Your task to perform on an android device: turn off translation in the chrome app Image 0: 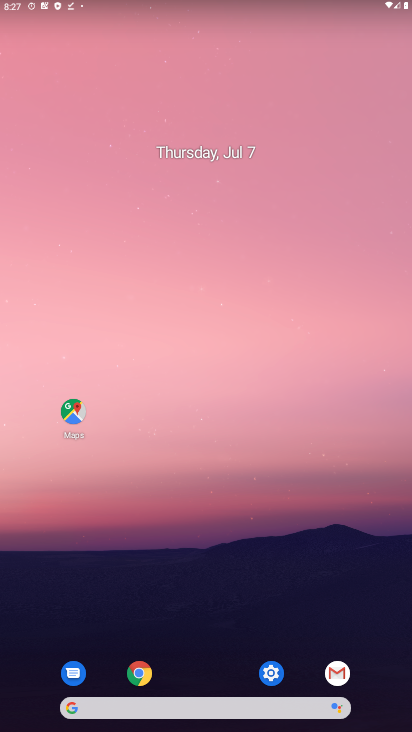
Step 0: click (155, 666)
Your task to perform on an android device: turn off translation in the chrome app Image 1: 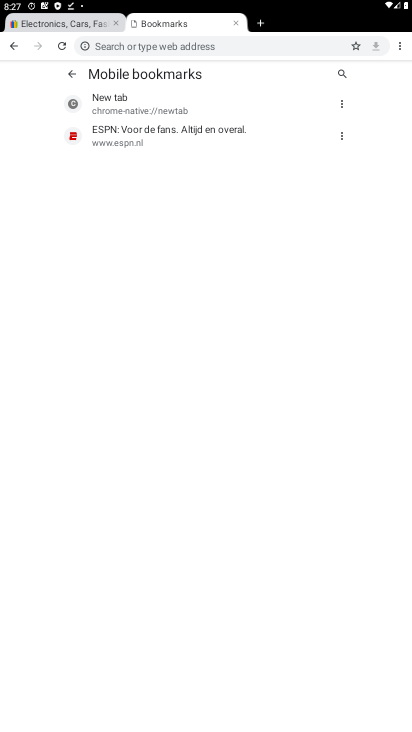
Step 1: click (398, 49)
Your task to perform on an android device: turn off translation in the chrome app Image 2: 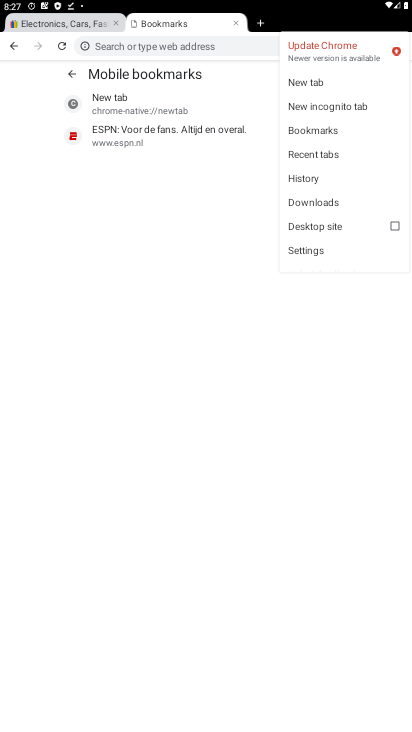
Step 2: click (304, 253)
Your task to perform on an android device: turn off translation in the chrome app Image 3: 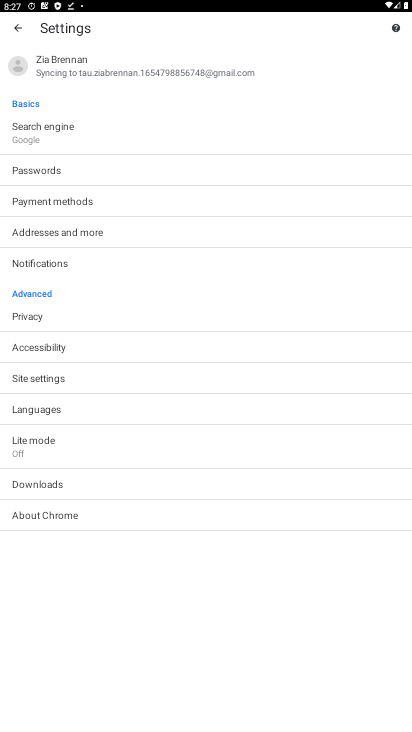
Step 3: click (78, 403)
Your task to perform on an android device: turn off translation in the chrome app Image 4: 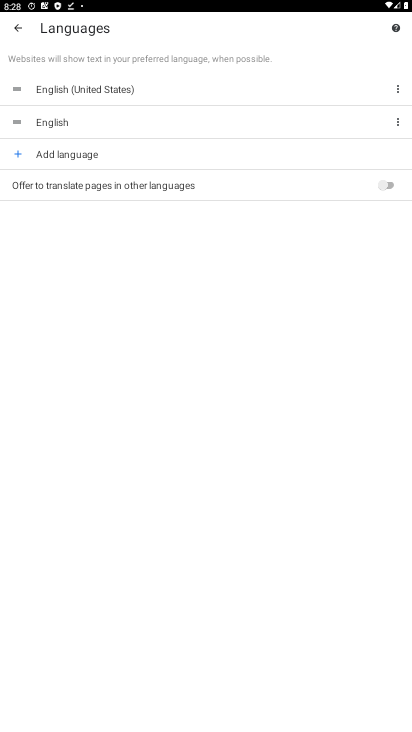
Step 4: click (368, 177)
Your task to perform on an android device: turn off translation in the chrome app Image 5: 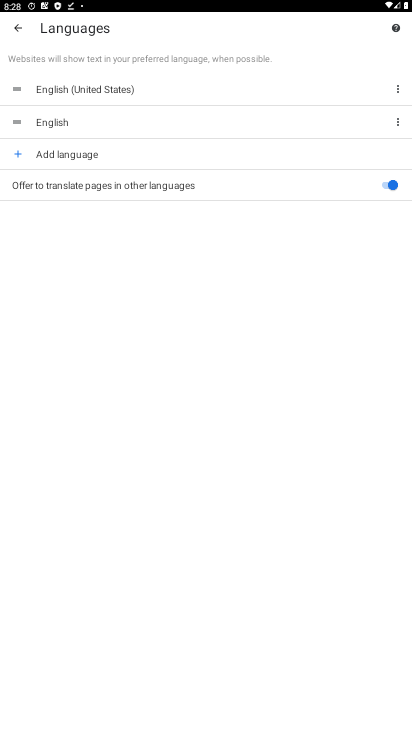
Step 5: click (368, 177)
Your task to perform on an android device: turn off translation in the chrome app Image 6: 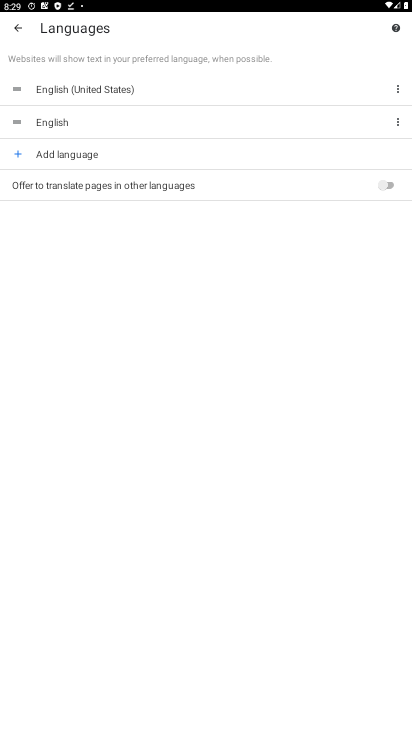
Step 6: task complete